Your task to perform on an android device: Open location settings Image 0: 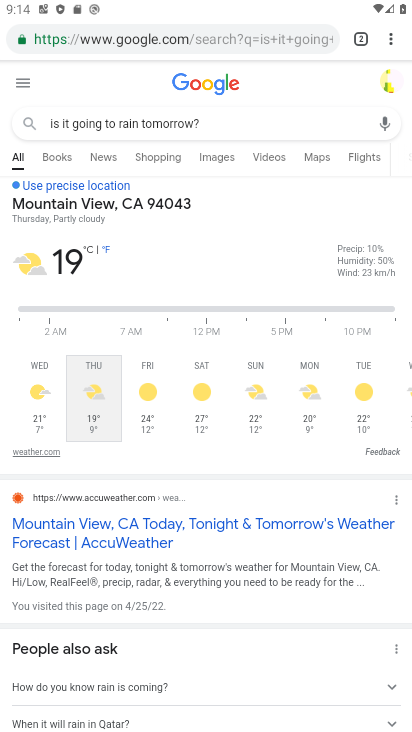
Step 0: press home button
Your task to perform on an android device: Open location settings Image 1: 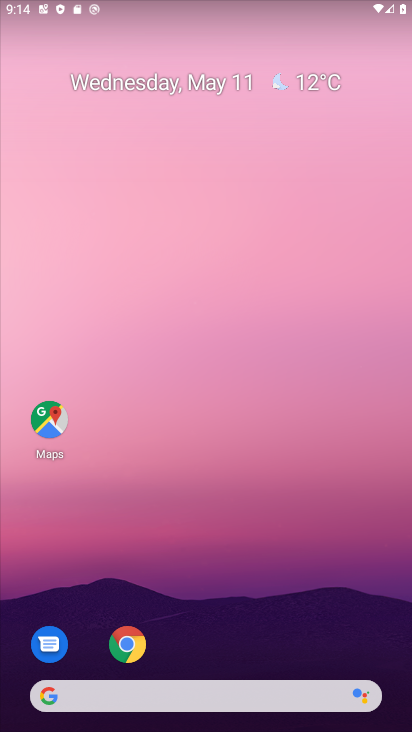
Step 1: drag from (245, 646) to (116, 217)
Your task to perform on an android device: Open location settings Image 2: 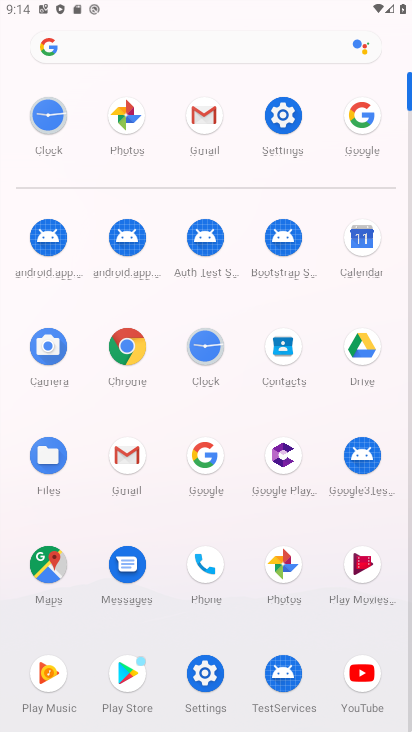
Step 2: click (192, 664)
Your task to perform on an android device: Open location settings Image 3: 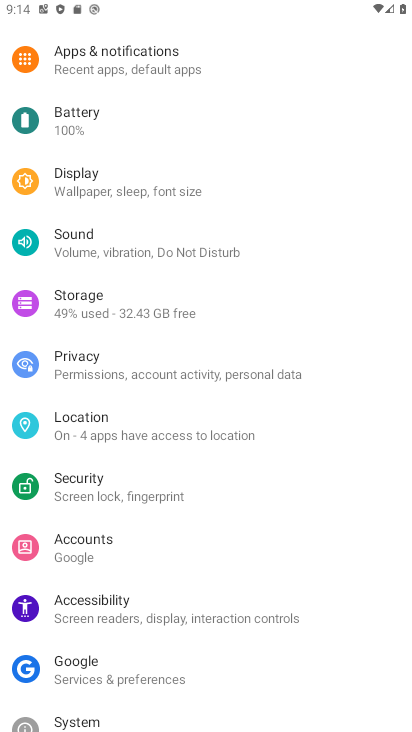
Step 3: click (159, 437)
Your task to perform on an android device: Open location settings Image 4: 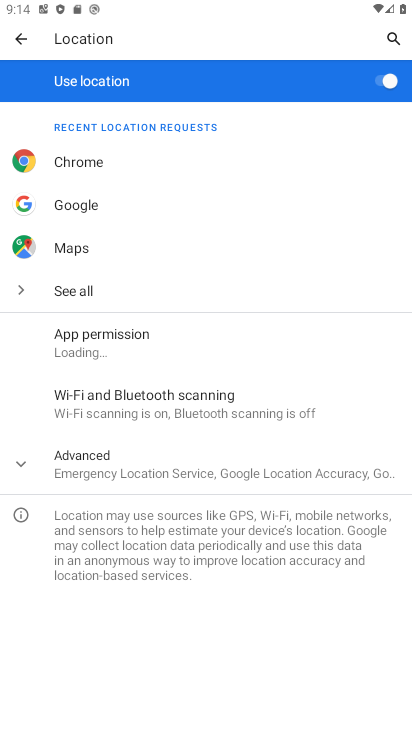
Step 4: click (141, 474)
Your task to perform on an android device: Open location settings Image 5: 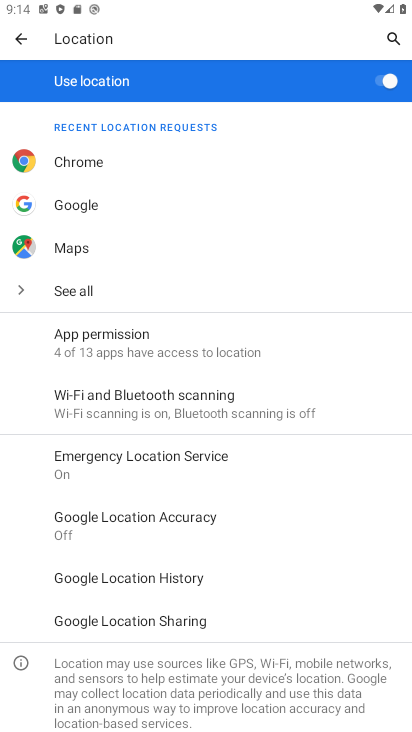
Step 5: task complete